Your task to perform on an android device: toggle notification dots Image 0: 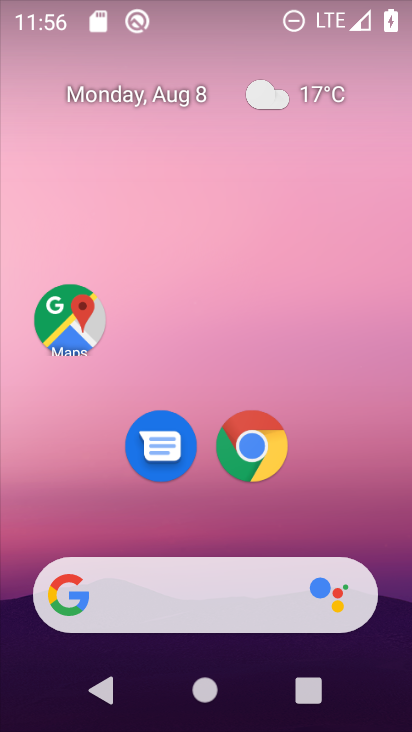
Step 0: drag from (386, 628) to (375, 182)
Your task to perform on an android device: toggle notification dots Image 1: 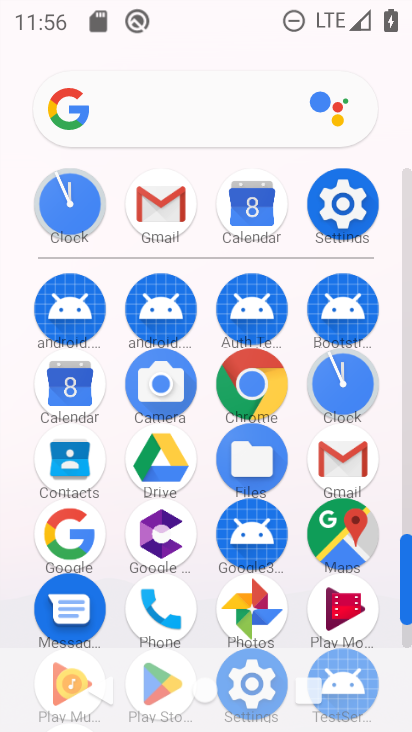
Step 1: click (407, 501)
Your task to perform on an android device: toggle notification dots Image 2: 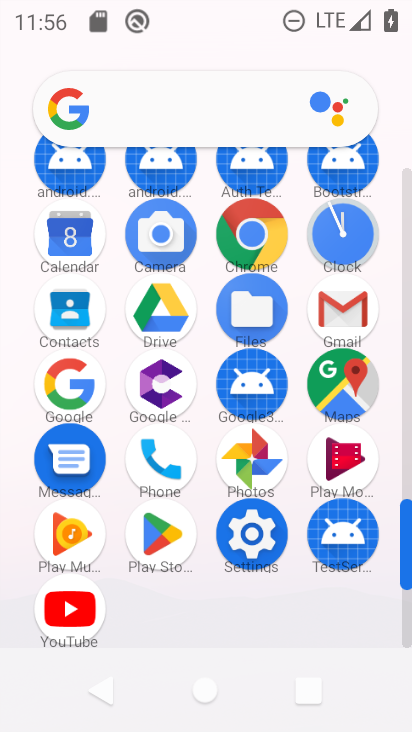
Step 2: click (250, 532)
Your task to perform on an android device: toggle notification dots Image 3: 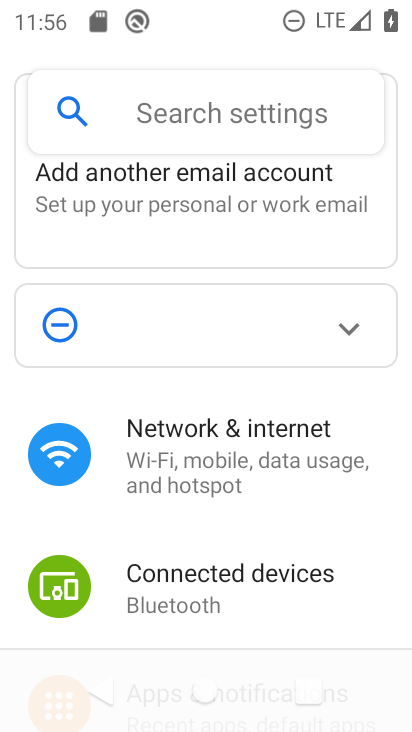
Step 3: drag from (236, 585) to (235, 240)
Your task to perform on an android device: toggle notification dots Image 4: 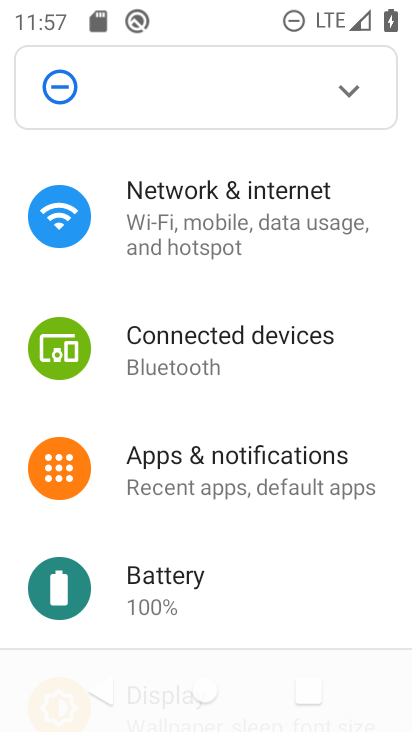
Step 4: click (252, 466)
Your task to perform on an android device: toggle notification dots Image 5: 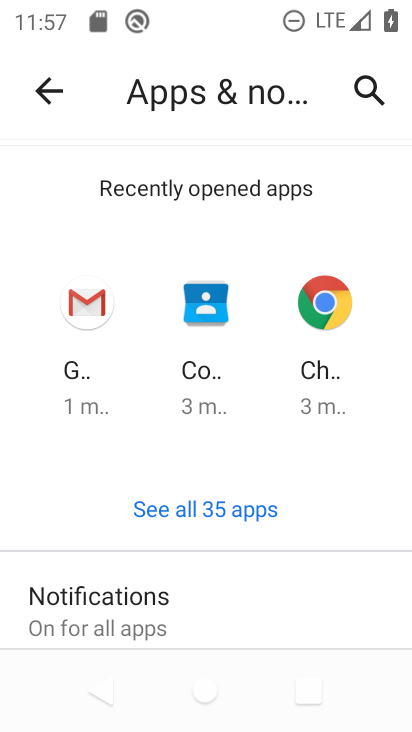
Step 5: drag from (256, 628) to (289, 200)
Your task to perform on an android device: toggle notification dots Image 6: 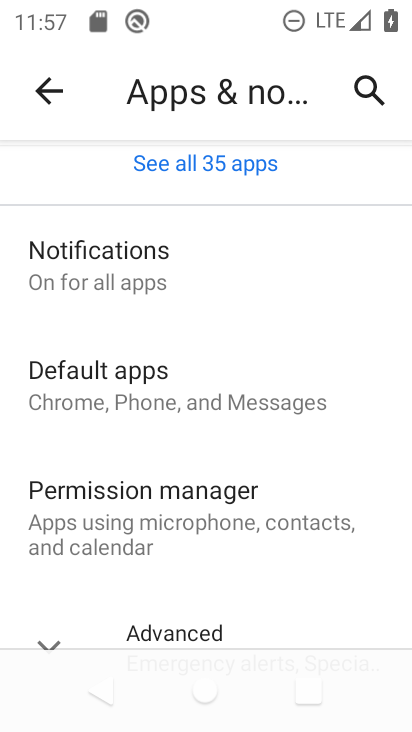
Step 6: click (116, 280)
Your task to perform on an android device: toggle notification dots Image 7: 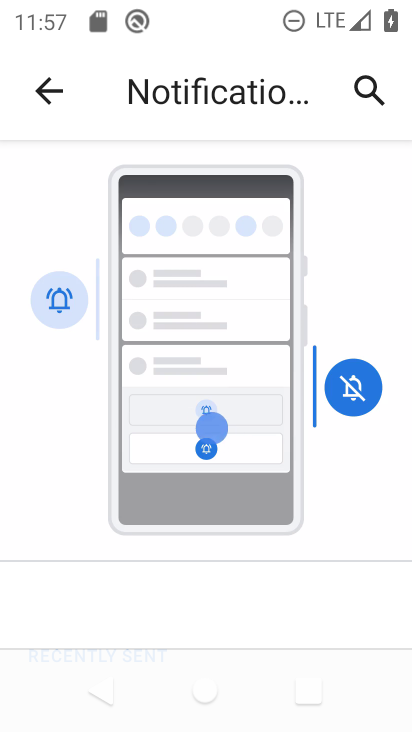
Step 7: drag from (252, 601) to (266, 136)
Your task to perform on an android device: toggle notification dots Image 8: 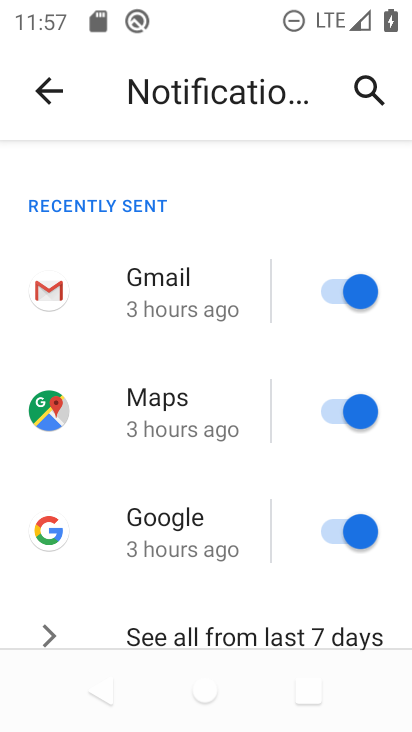
Step 8: drag from (284, 621) to (253, 132)
Your task to perform on an android device: toggle notification dots Image 9: 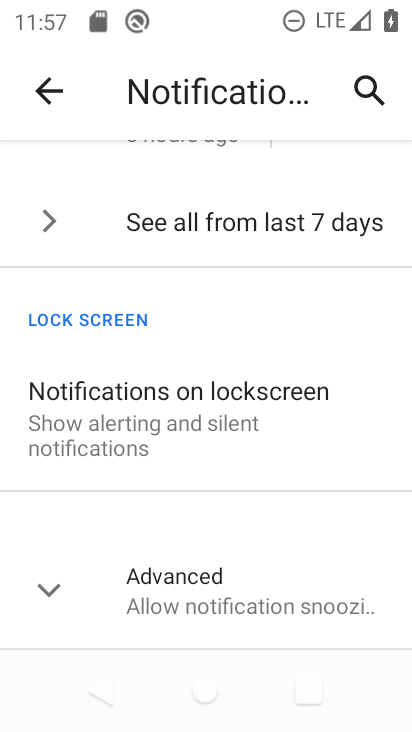
Step 9: click (44, 596)
Your task to perform on an android device: toggle notification dots Image 10: 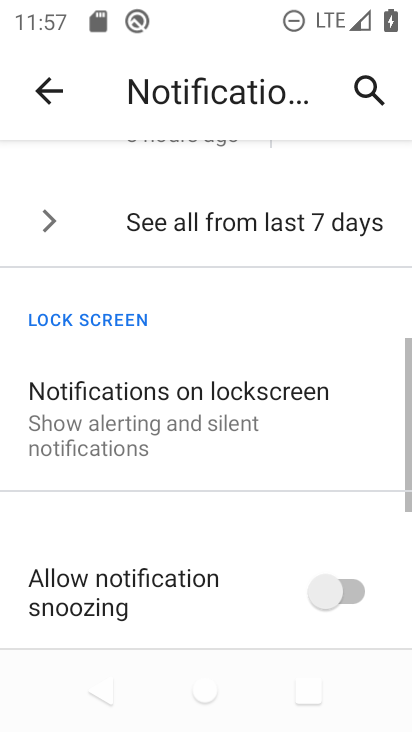
Step 10: drag from (239, 593) to (276, 134)
Your task to perform on an android device: toggle notification dots Image 11: 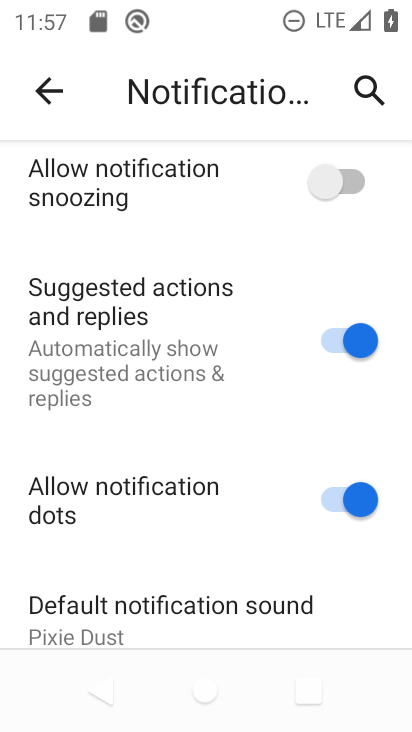
Step 11: click (325, 498)
Your task to perform on an android device: toggle notification dots Image 12: 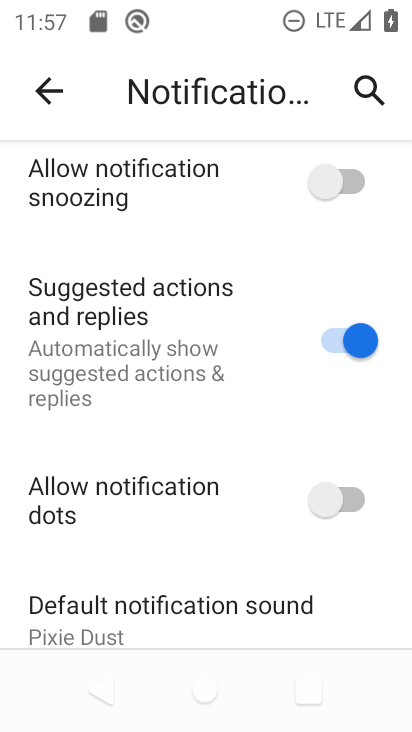
Step 12: task complete